Your task to perform on an android device: Open Google Chrome and open the bookmarks view Image 0: 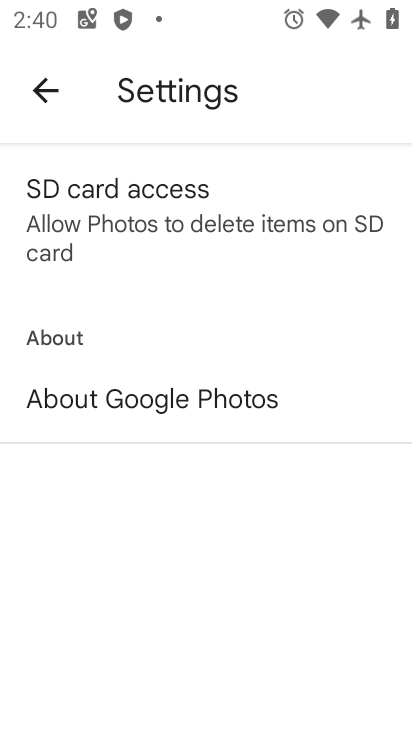
Step 0: press home button
Your task to perform on an android device: Open Google Chrome and open the bookmarks view Image 1: 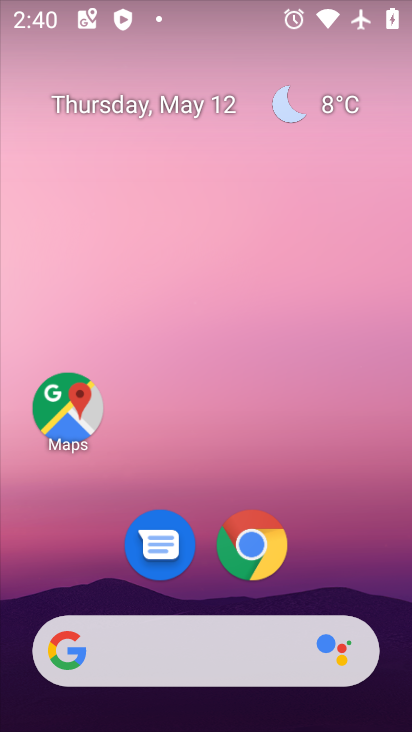
Step 1: click (249, 546)
Your task to perform on an android device: Open Google Chrome and open the bookmarks view Image 2: 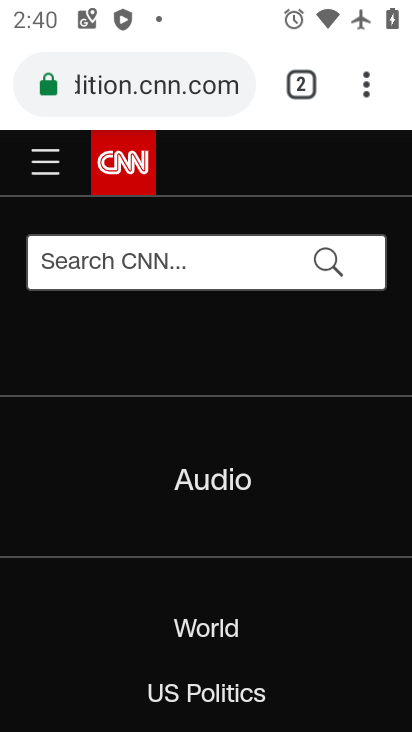
Step 2: click (366, 89)
Your task to perform on an android device: Open Google Chrome and open the bookmarks view Image 3: 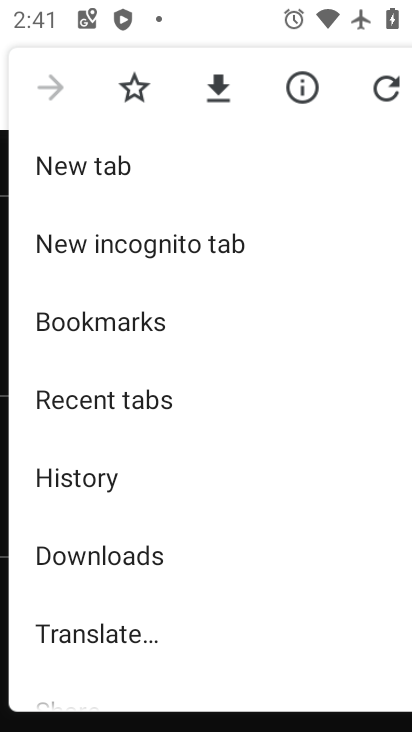
Step 3: click (137, 326)
Your task to perform on an android device: Open Google Chrome and open the bookmarks view Image 4: 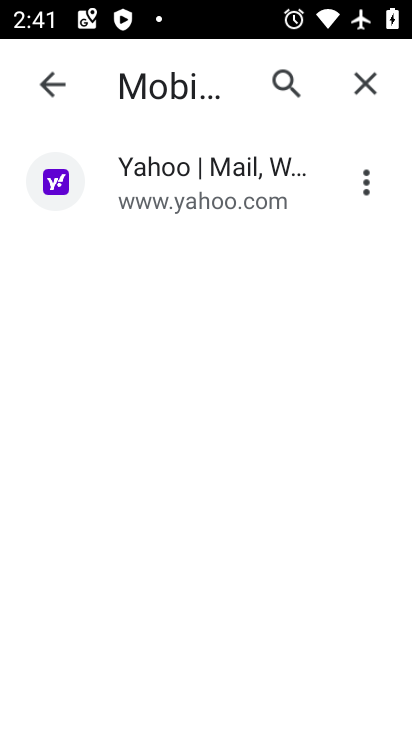
Step 4: task complete